Your task to perform on an android device: turn notification dots off Image 0: 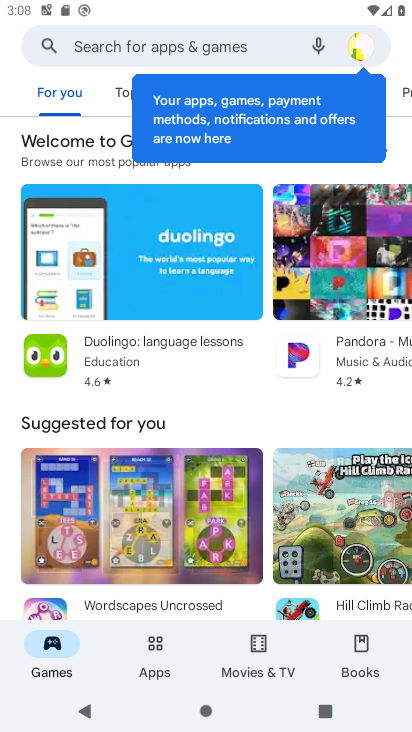
Step 0: press home button
Your task to perform on an android device: turn notification dots off Image 1: 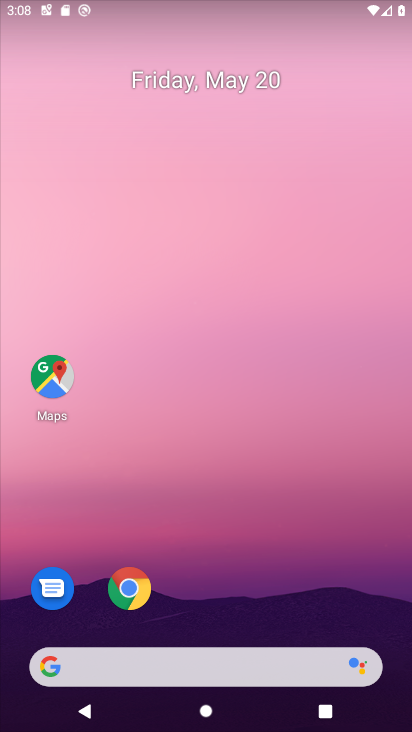
Step 1: drag from (332, 559) to (320, 127)
Your task to perform on an android device: turn notification dots off Image 2: 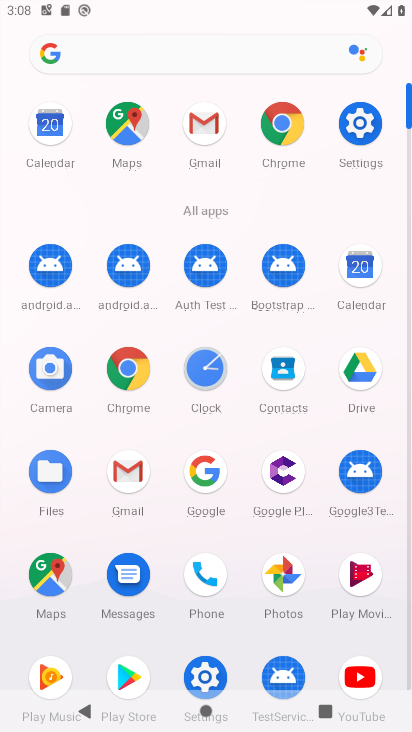
Step 2: click (358, 119)
Your task to perform on an android device: turn notification dots off Image 3: 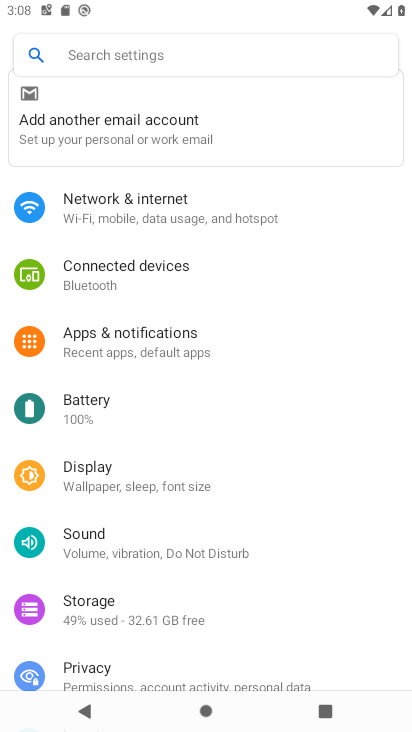
Step 3: click (121, 337)
Your task to perform on an android device: turn notification dots off Image 4: 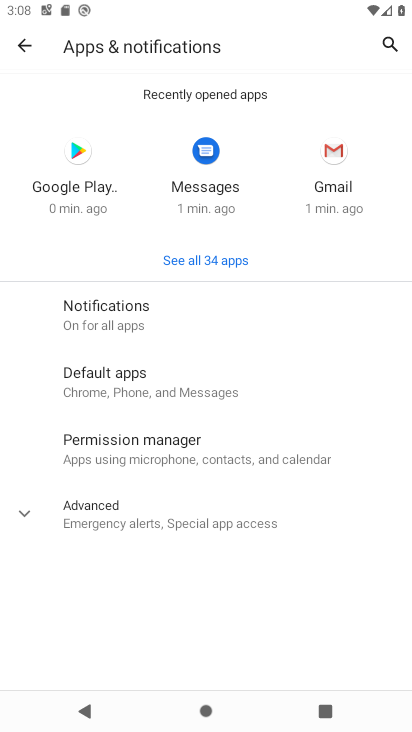
Step 4: click (123, 328)
Your task to perform on an android device: turn notification dots off Image 5: 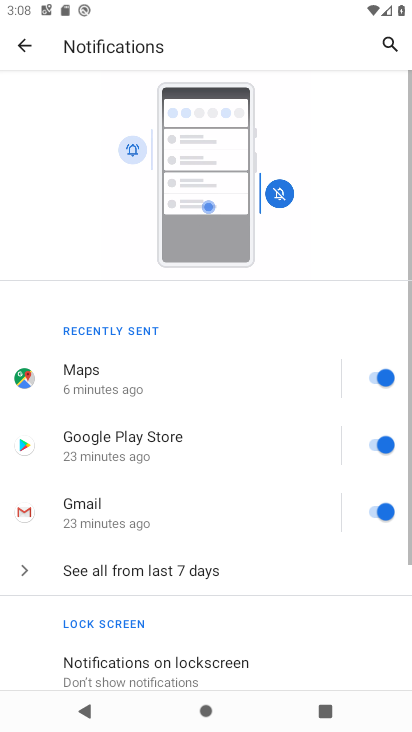
Step 5: drag from (243, 626) to (248, 123)
Your task to perform on an android device: turn notification dots off Image 6: 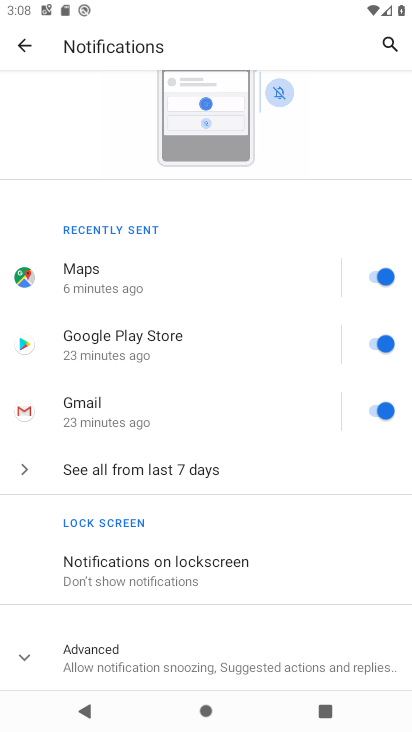
Step 6: click (99, 672)
Your task to perform on an android device: turn notification dots off Image 7: 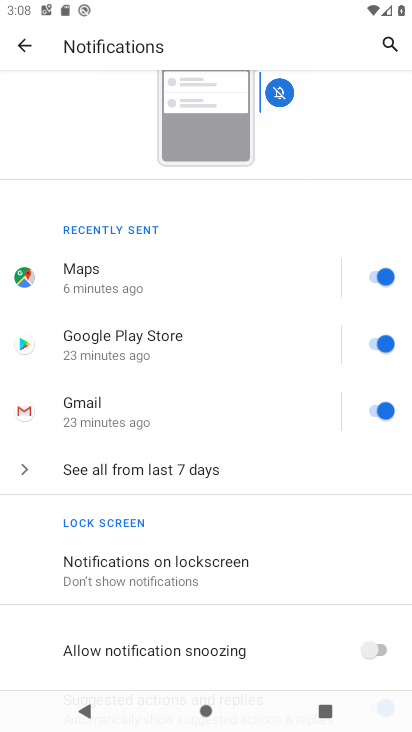
Step 7: task complete